Your task to perform on an android device: Open calendar and show me the first week of next month Image 0: 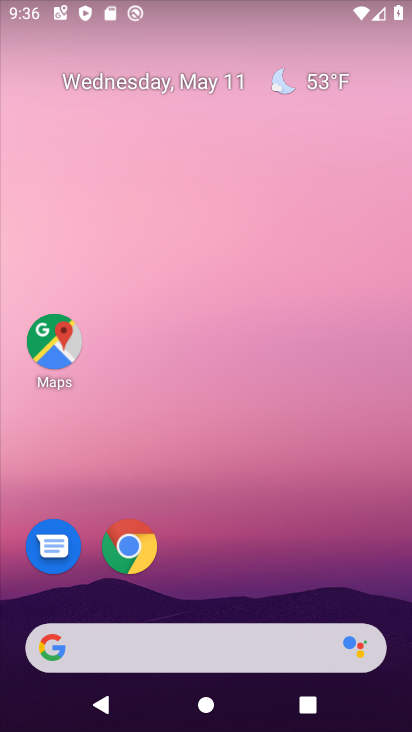
Step 0: drag from (396, 616) to (239, 63)
Your task to perform on an android device: Open calendar and show me the first week of next month Image 1: 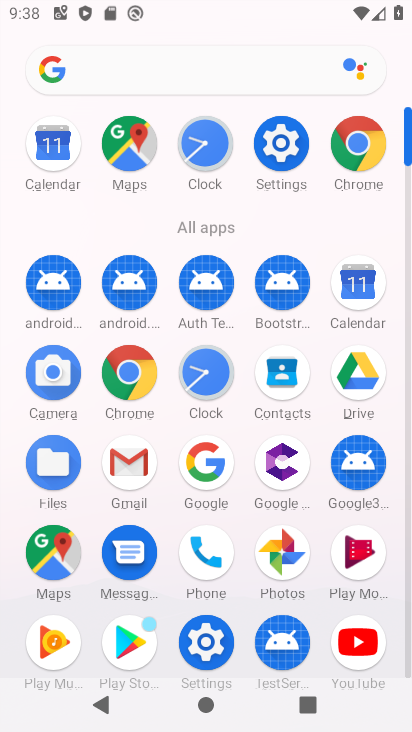
Step 1: click (358, 300)
Your task to perform on an android device: Open calendar and show me the first week of next month Image 2: 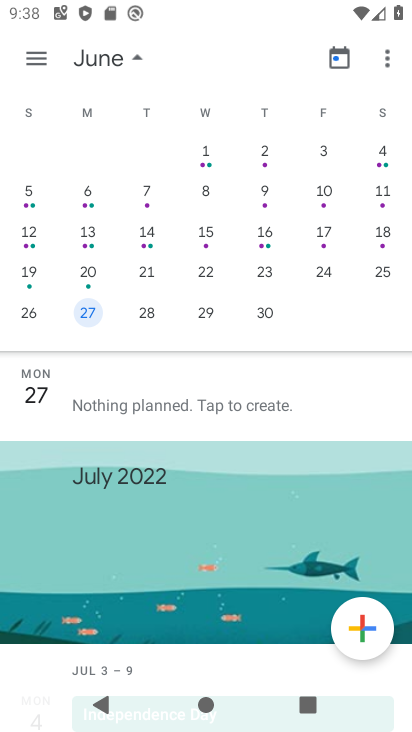
Step 2: drag from (368, 261) to (176, 269)
Your task to perform on an android device: Open calendar and show me the first week of next month Image 3: 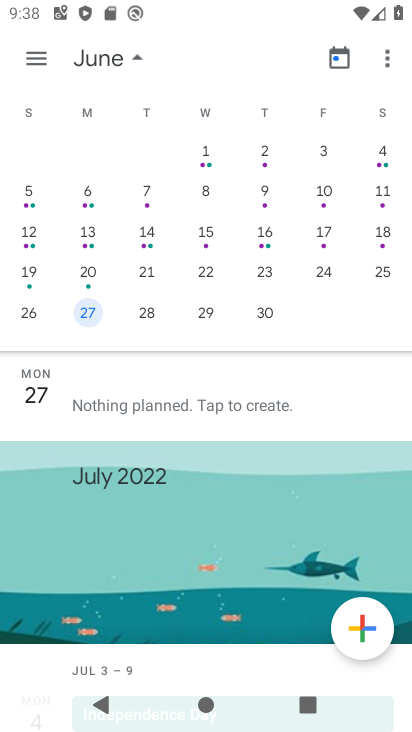
Step 3: click (26, 202)
Your task to perform on an android device: Open calendar and show me the first week of next month Image 4: 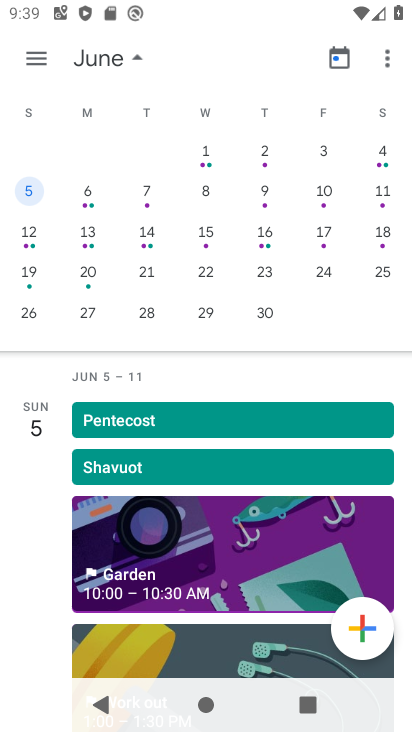
Step 4: task complete